Your task to perform on an android device: star an email in the gmail app Image 0: 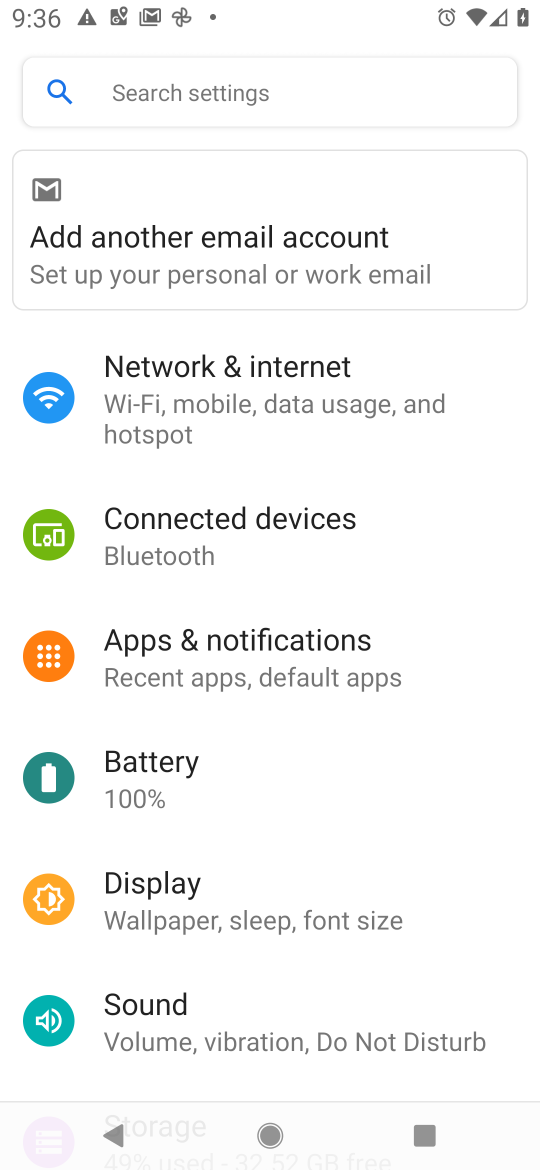
Step 0: press home button
Your task to perform on an android device: star an email in the gmail app Image 1: 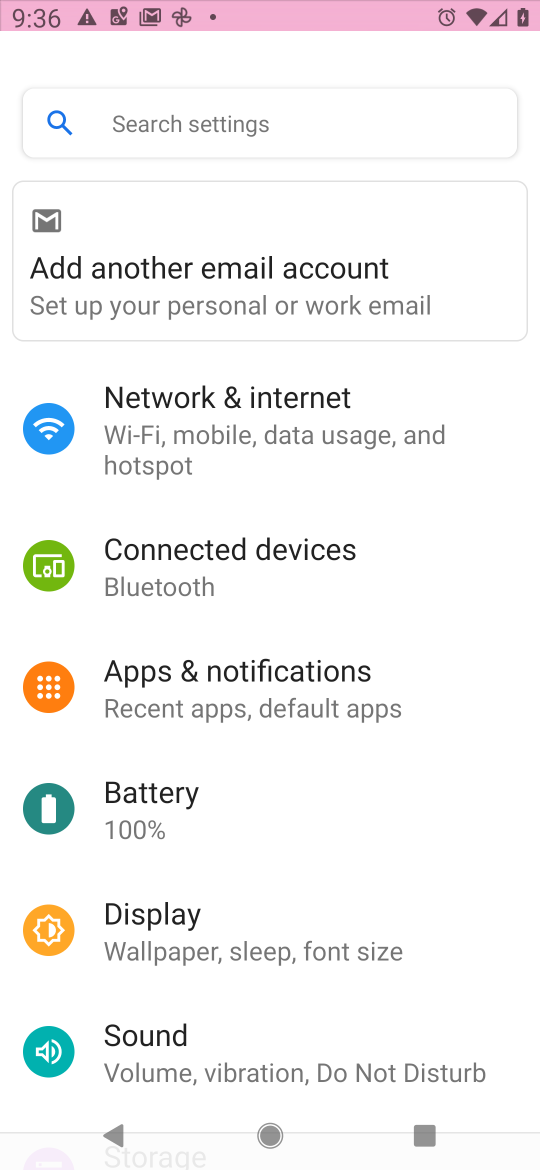
Step 1: drag from (486, 1078) to (237, 6)
Your task to perform on an android device: star an email in the gmail app Image 2: 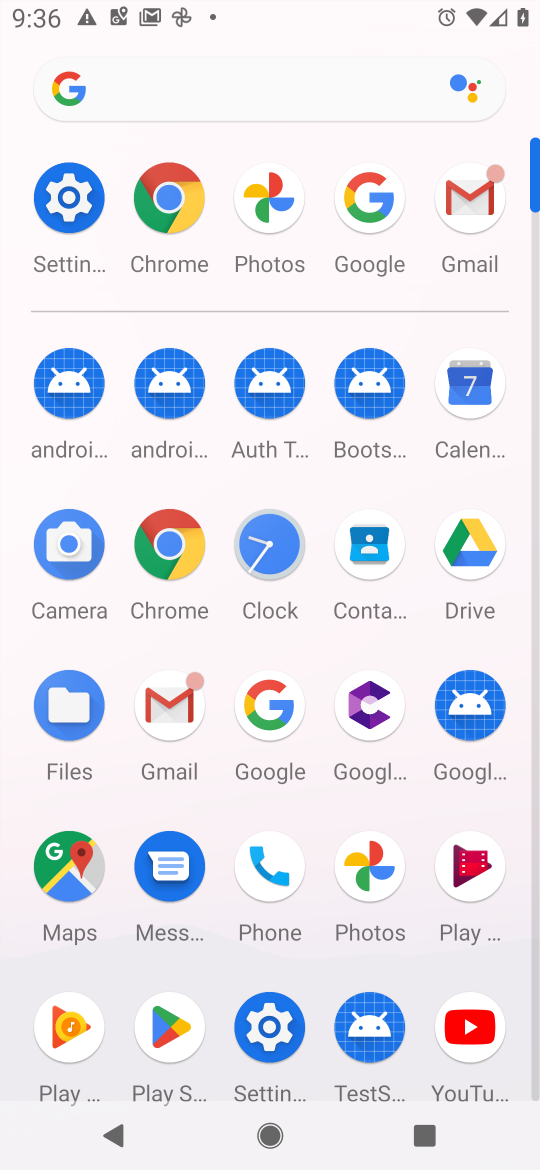
Step 2: click (171, 707)
Your task to perform on an android device: star an email in the gmail app Image 3: 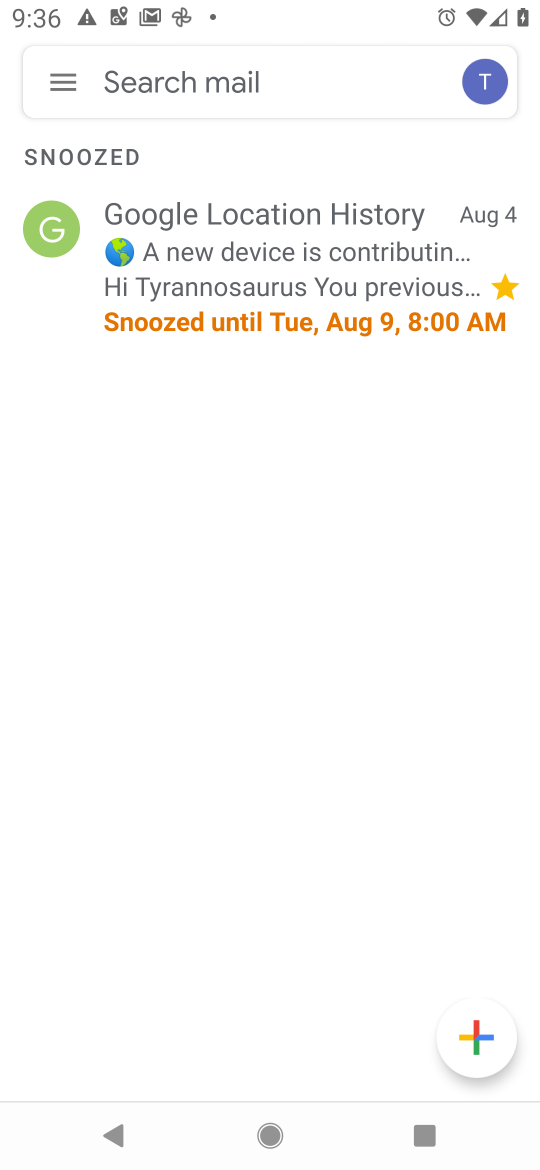
Step 3: task complete